Your task to perform on an android device: When is my next appointment? Image 0: 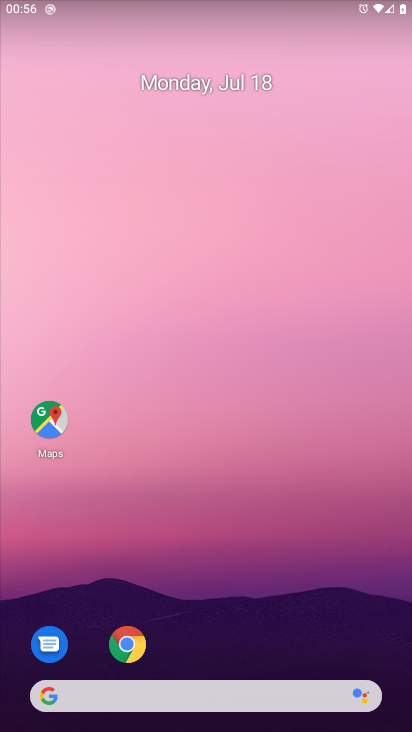
Step 0: press home button
Your task to perform on an android device: When is my next appointment? Image 1: 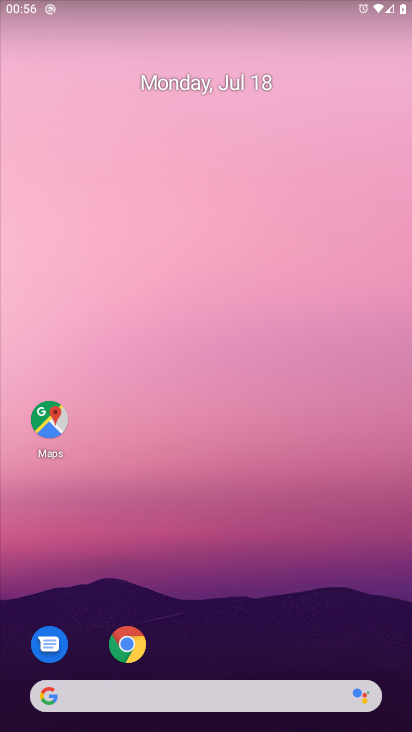
Step 1: press home button
Your task to perform on an android device: When is my next appointment? Image 2: 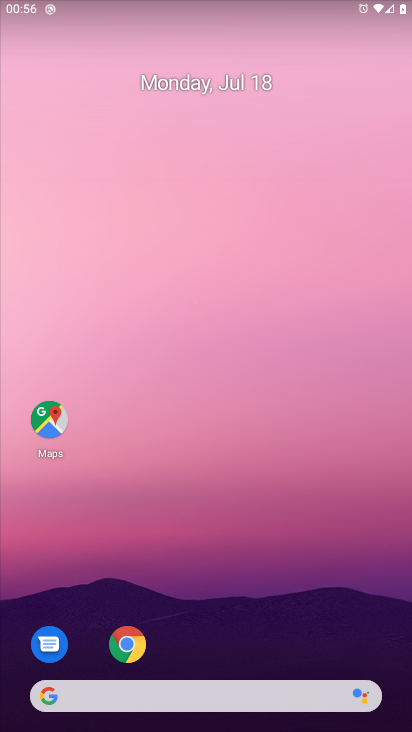
Step 2: drag from (253, 642) to (284, 83)
Your task to perform on an android device: When is my next appointment? Image 3: 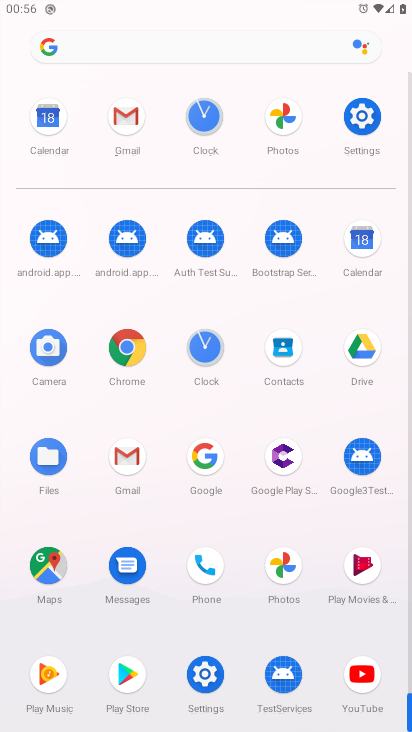
Step 3: click (354, 239)
Your task to perform on an android device: When is my next appointment? Image 4: 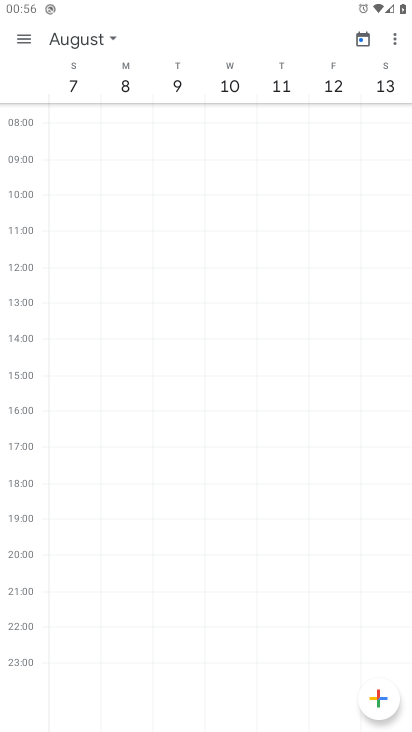
Step 4: click (24, 38)
Your task to perform on an android device: When is my next appointment? Image 5: 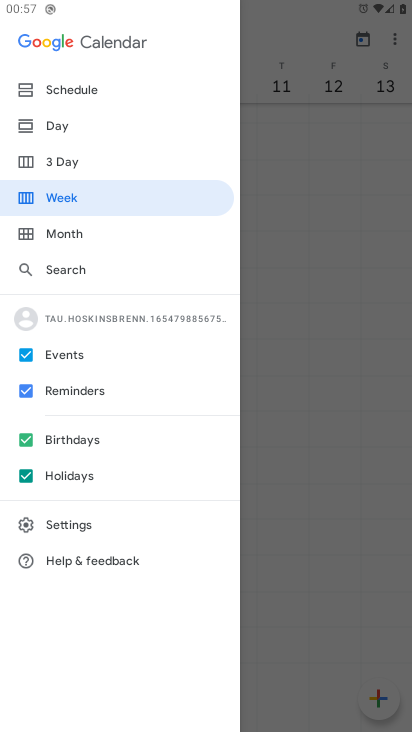
Step 5: click (92, 89)
Your task to perform on an android device: When is my next appointment? Image 6: 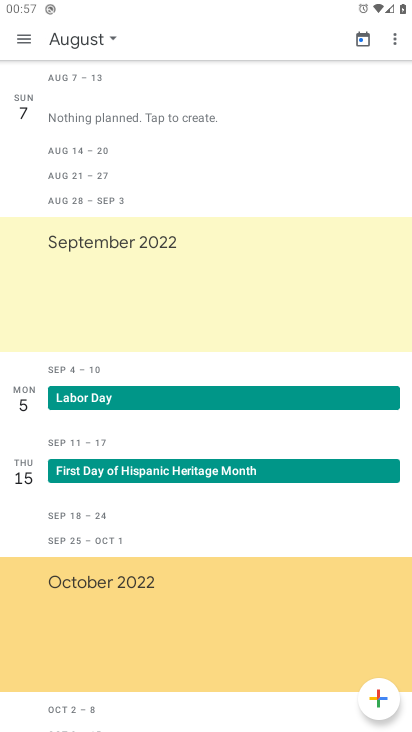
Step 6: task complete